Your task to perform on an android device: Open my contact list Image 0: 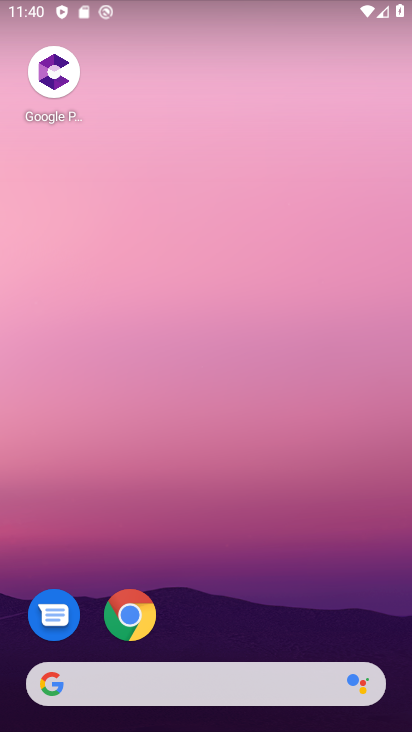
Step 0: drag from (285, 679) to (232, 91)
Your task to perform on an android device: Open my contact list Image 1: 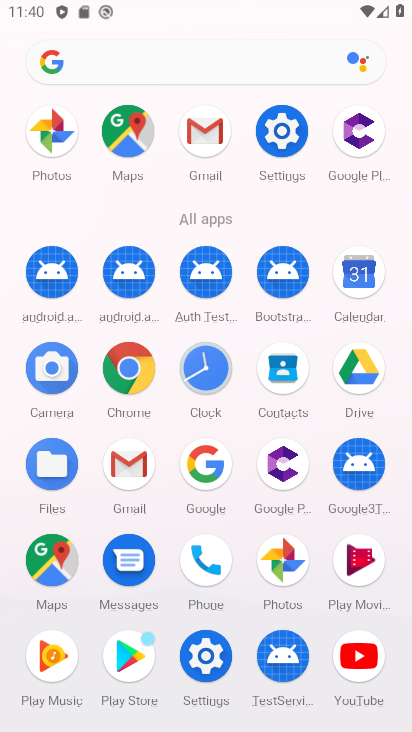
Step 1: click (277, 374)
Your task to perform on an android device: Open my contact list Image 2: 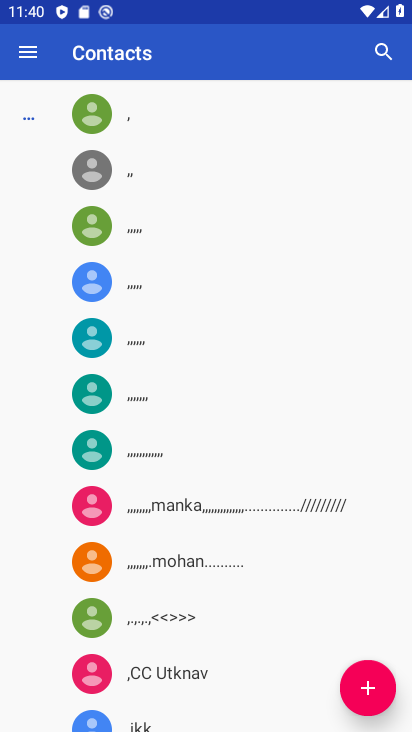
Step 2: task complete